Your task to perform on an android device: toggle wifi Image 0: 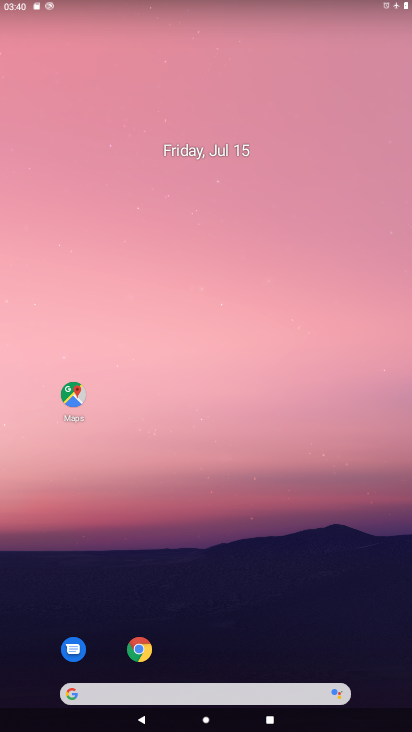
Step 0: drag from (386, 667) to (329, 133)
Your task to perform on an android device: toggle wifi Image 1: 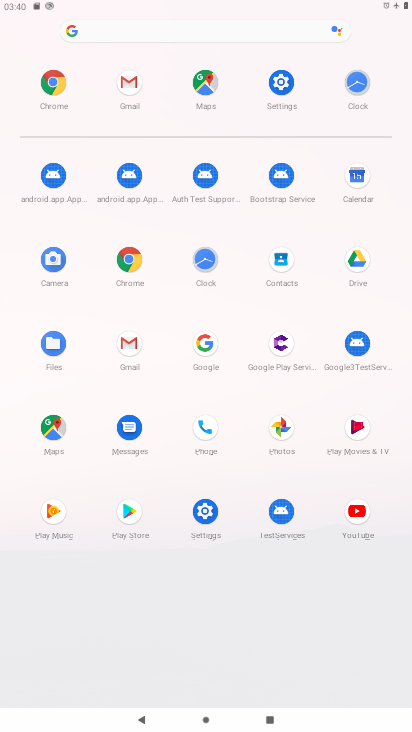
Step 1: click (205, 512)
Your task to perform on an android device: toggle wifi Image 2: 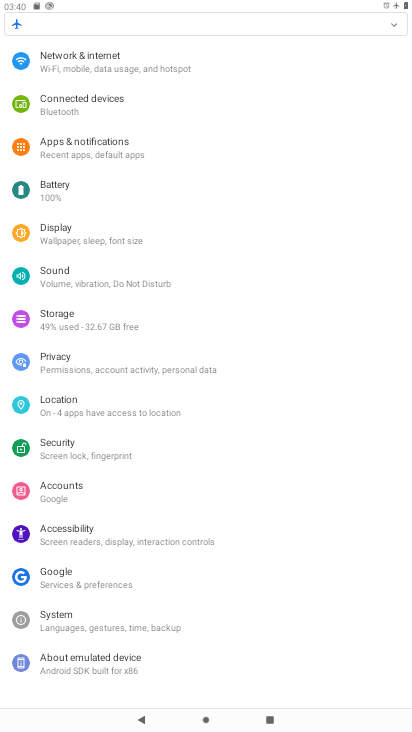
Step 2: click (58, 48)
Your task to perform on an android device: toggle wifi Image 3: 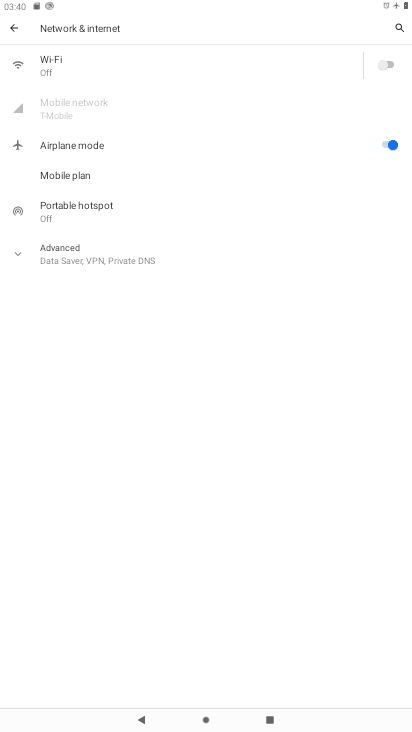
Step 3: click (388, 63)
Your task to perform on an android device: toggle wifi Image 4: 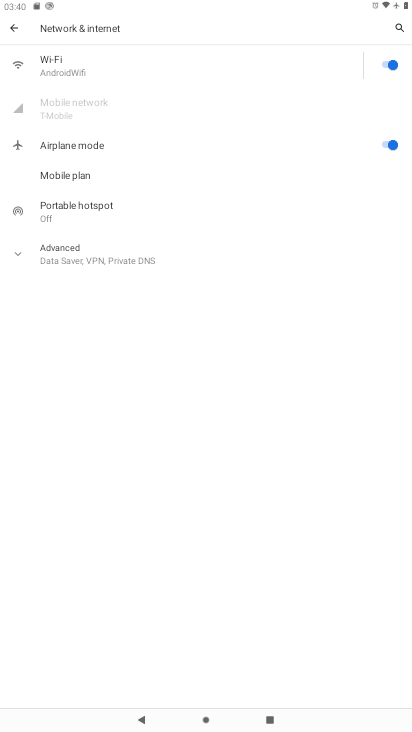
Step 4: task complete